Your task to perform on an android device: What is the recent news? Image 0: 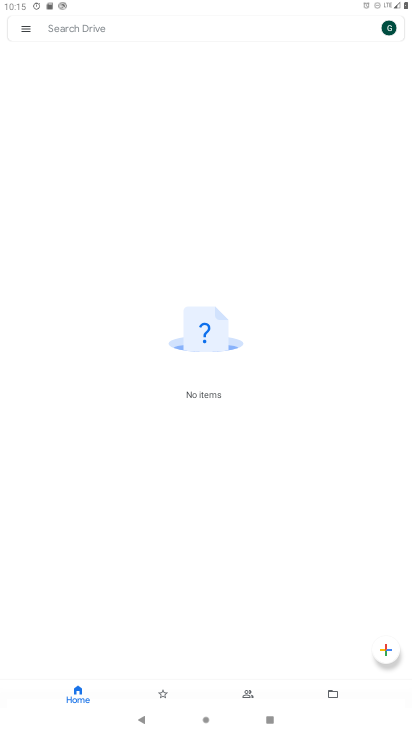
Step 0: press home button
Your task to perform on an android device: What is the recent news? Image 1: 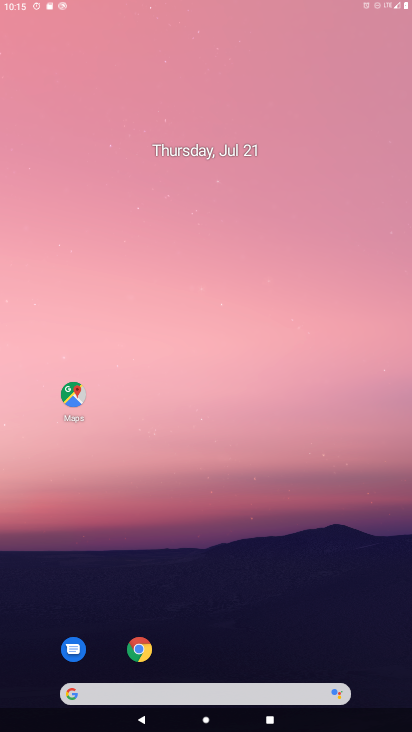
Step 1: drag from (372, 658) to (208, 41)
Your task to perform on an android device: What is the recent news? Image 2: 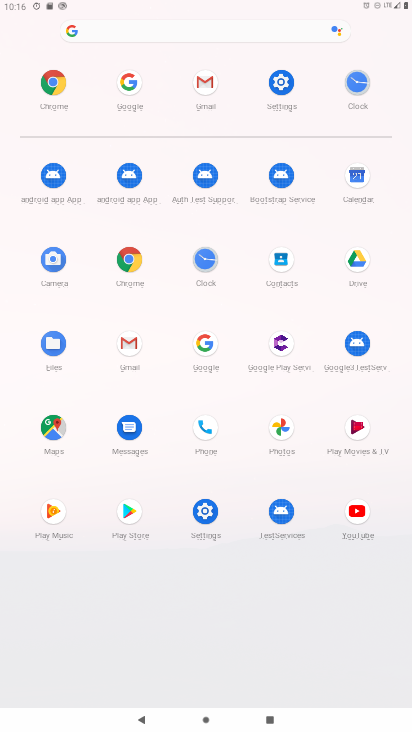
Step 2: click (199, 349)
Your task to perform on an android device: What is the recent news? Image 3: 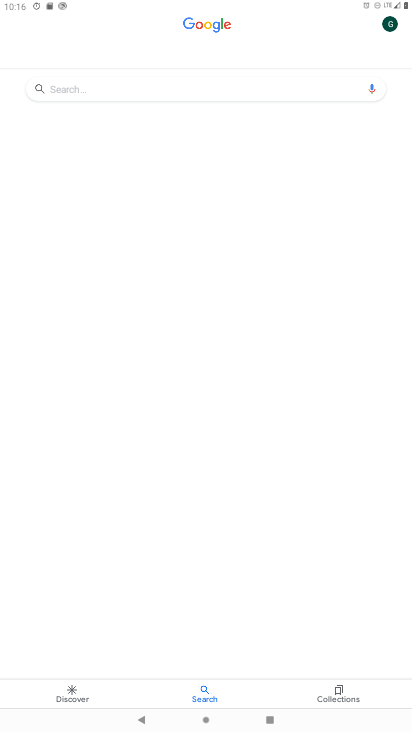
Step 3: click (125, 77)
Your task to perform on an android device: What is the recent news? Image 4: 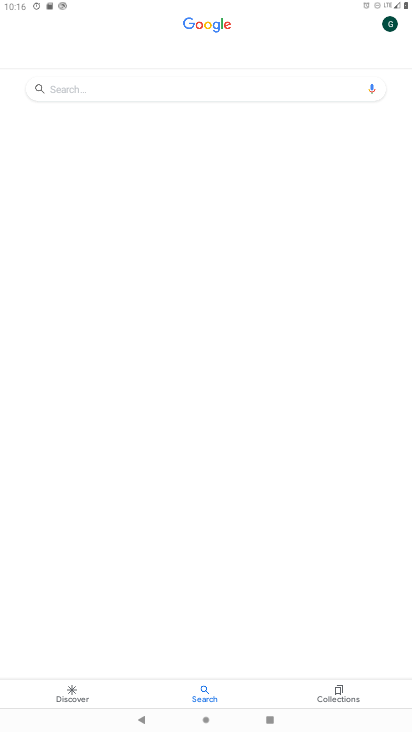
Step 4: click (78, 90)
Your task to perform on an android device: What is the recent news? Image 5: 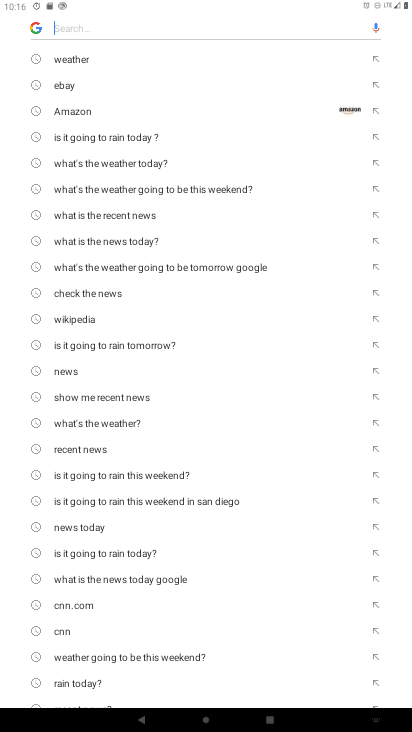
Step 5: click (141, 215)
Your task to perform on an android device: What is the recent news? Image 6: 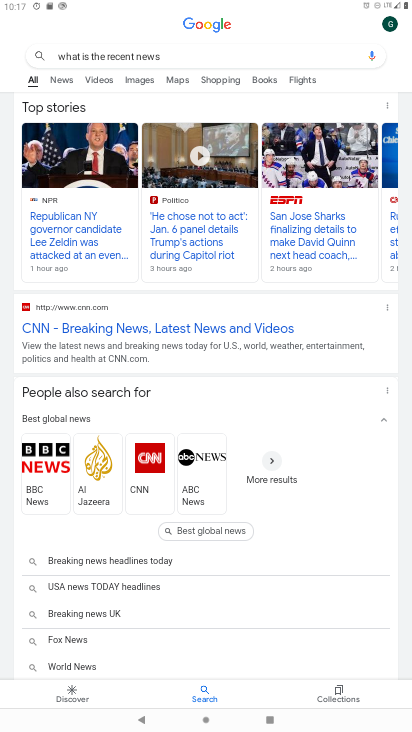
Step 6: task complete